Your task to perform on an android device: set default search engine in the chrome app Image 0: 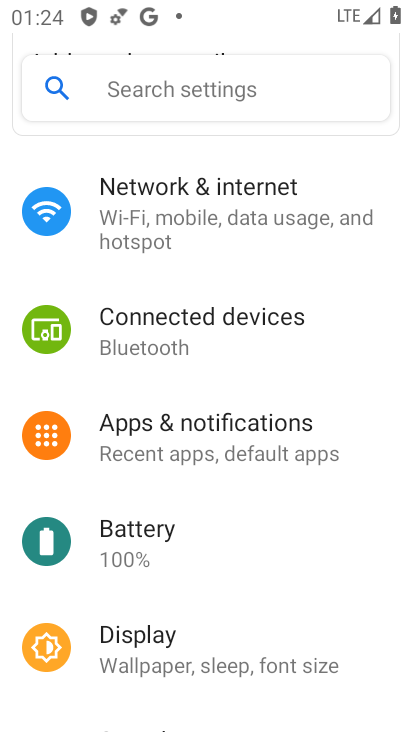
Step 0: press home button
Your task to perform on an android device: set default search engine in the chrome app Image 1: 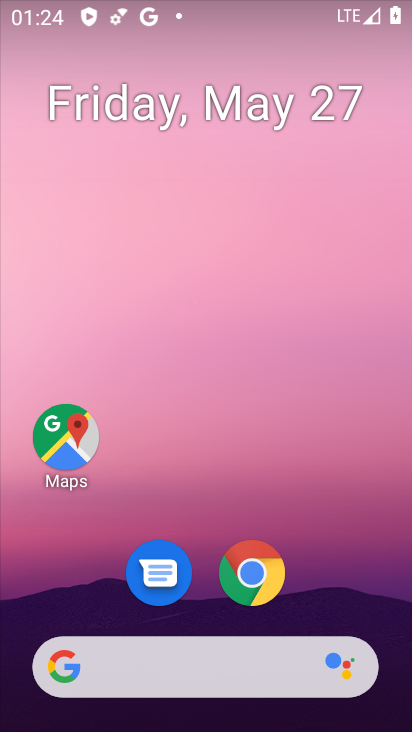
Step 1: click (267, 580)
Your task to perform on an android device: set default search engine in the chrome app Image 2: 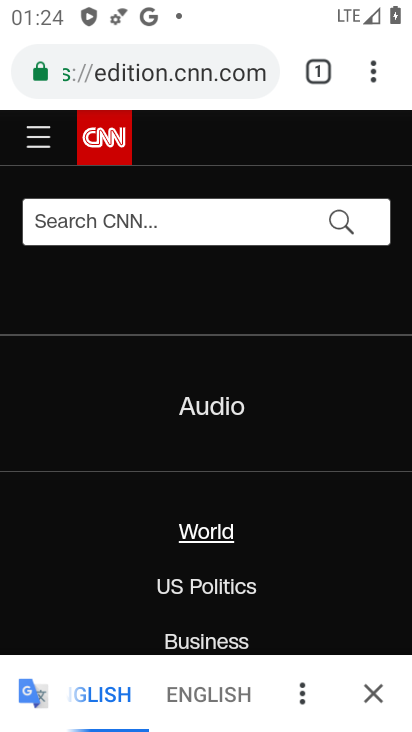
Step 2: click (376, 73)
Your task to perform on an android device: set default search engine in the chrome app Image 3: 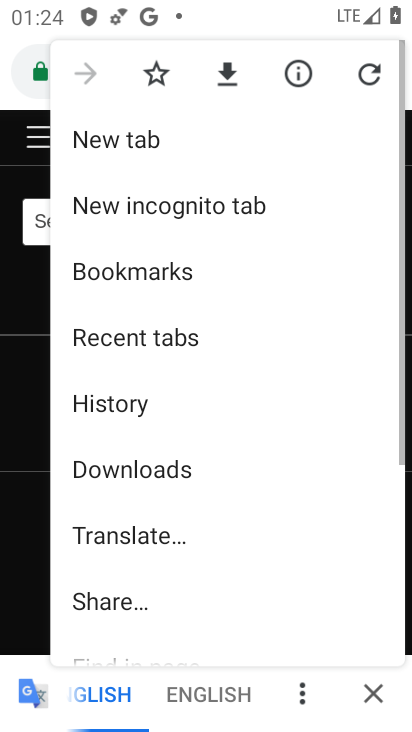
Step 3: drag from (161, 576) to (135, 103)
Your task to perform on an android device: set default search engine in the chrome app Image 4: 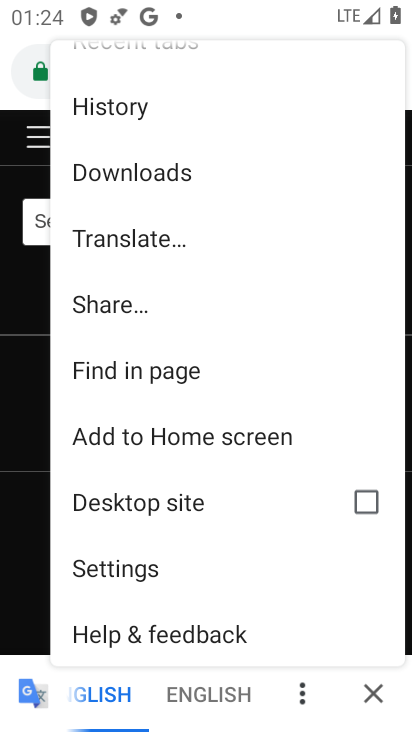
Step 4: click (126, 572)
Your task to perform on an android device: set default search engine in the chrome app Image 5: 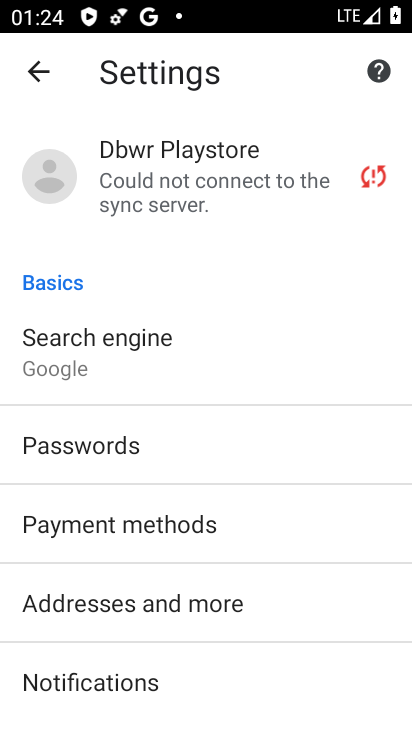
Step 5: click (95, 362)
Your task to perform on an android device: set default search engine in the chrome app Image 6: 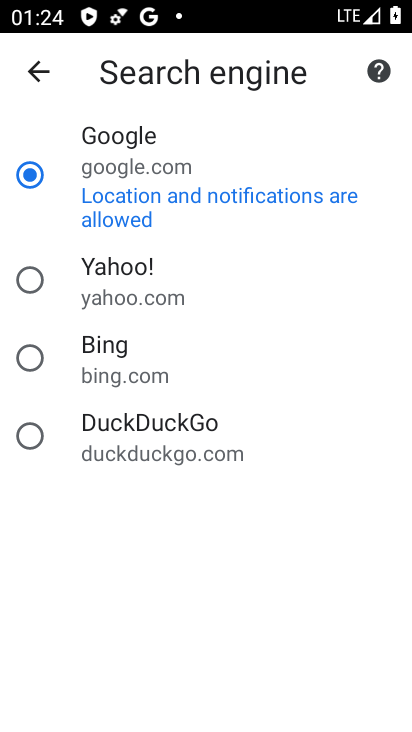
Step 6: task complete